Your task to perform on an android device: Go to CNN.com Image 0: 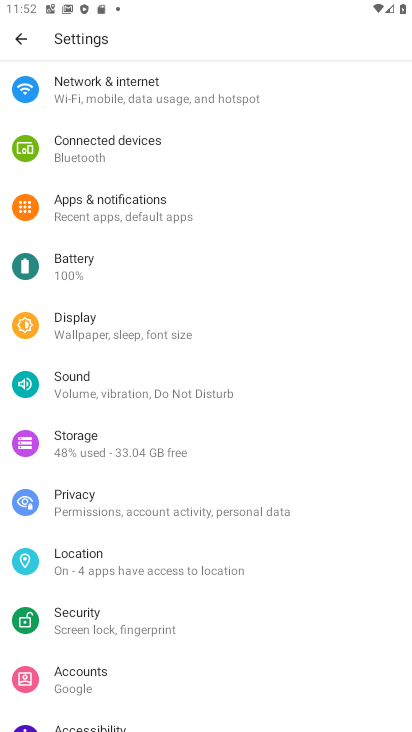
Step 0: press back button
Your task to perform on an android device: Go to CNN.com Image 1: 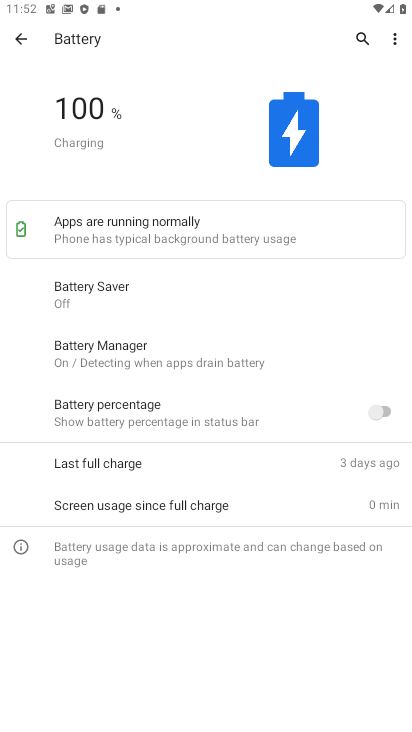
Step 1: press back button
Your task to perform on an android device: Go to CNN.com Image 2: 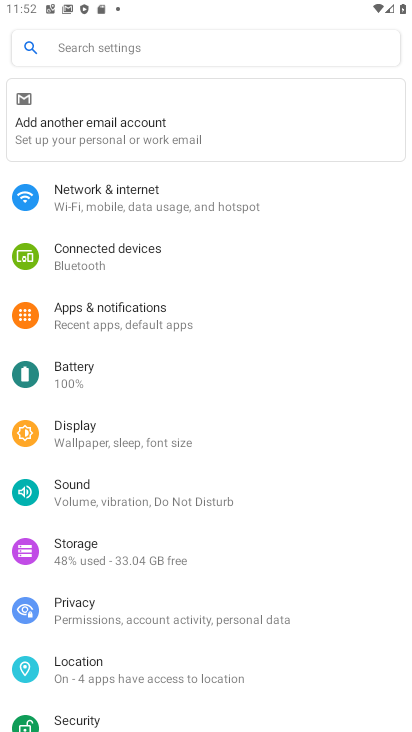
Step 2: press back button
Your task to perform on an android device: Go to CNN.com Image 3: 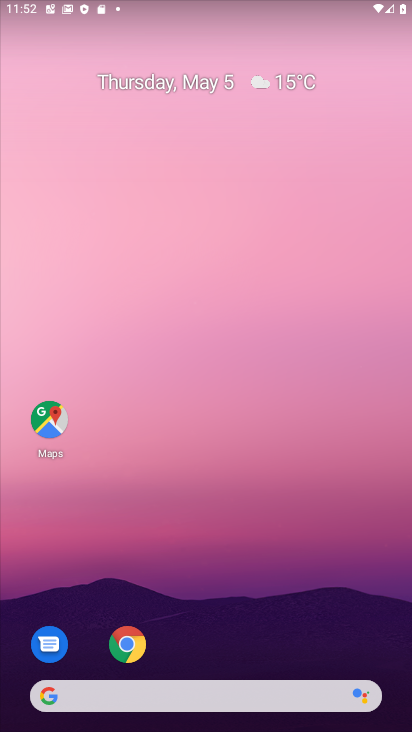
Step 3: drag from (282, 600) to (168, 25)
Your task to perform on an android device: Go to CNN.com Image 4: 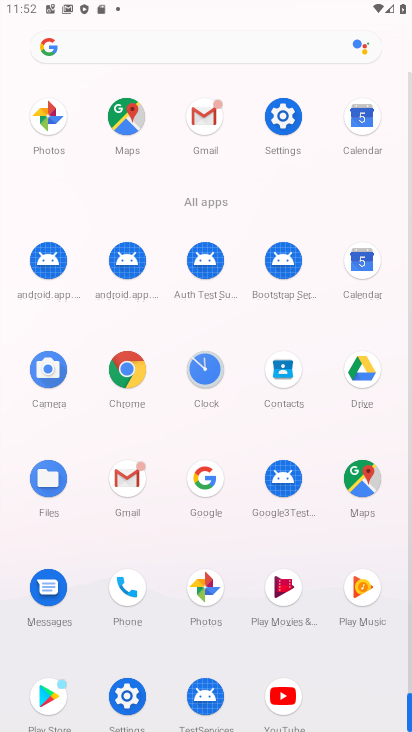
Step 4: click (125, 367)
Your task to perform on an android device: Go to CNN.com Image 5: 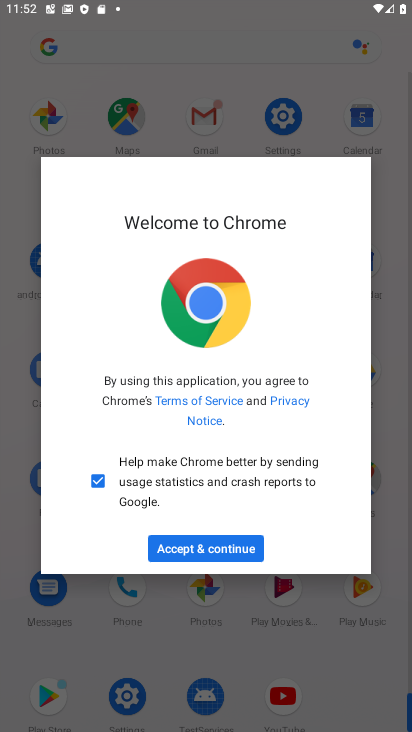
Step 5: click (210, 543)
Your task to perform on an android device: Go to CNN.com Image 6: 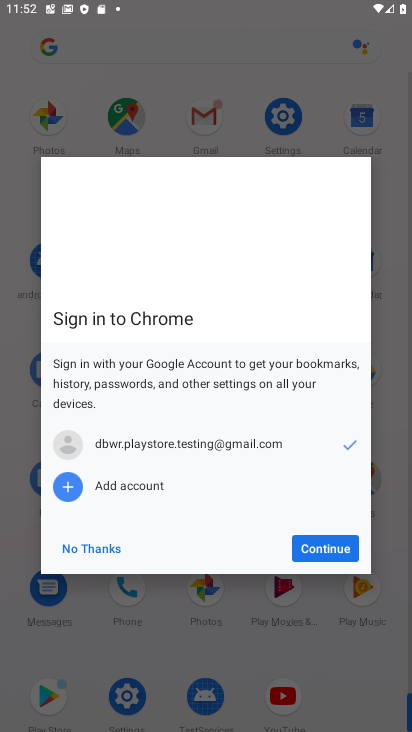
Step 6: click (313, 541)
Your task to perform on an android device: Go to CNN.com Image 7: 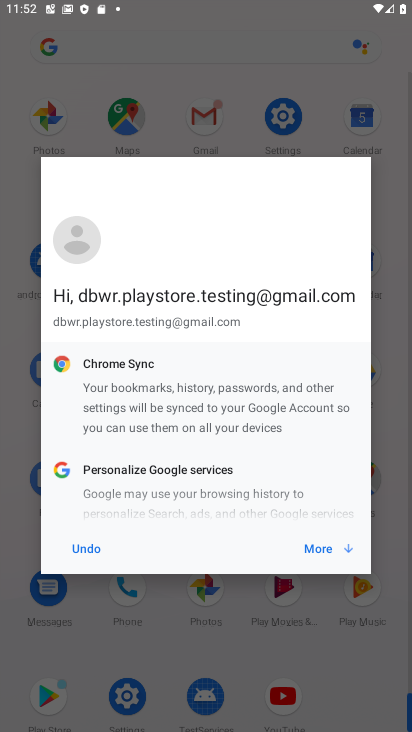
Step 7: click (313, 542)
Your task to perform on an android device: Go to CNN.com Image 8: 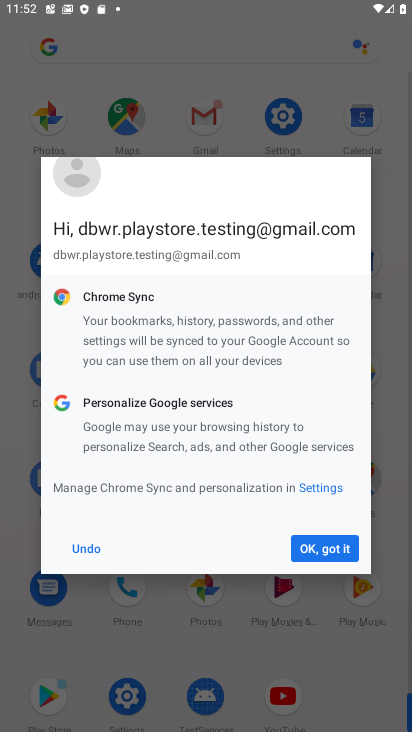
Step 8: click (313, 542)
Your task to perform on an android device: Go to CNN.com Image 9: 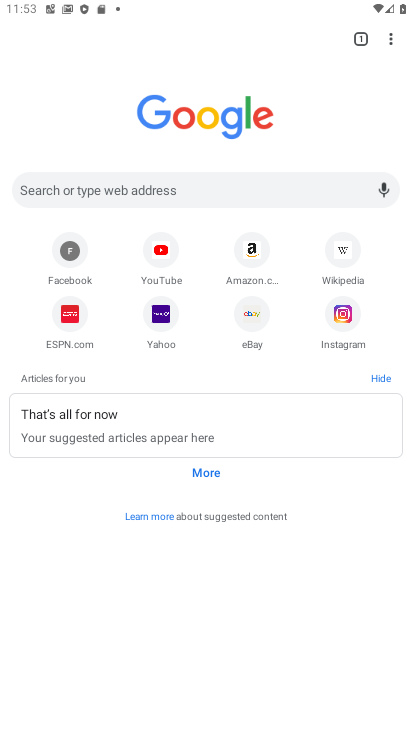
Step 9: click (139, 191)
Your task to perform on an android device: Go to CNN.com Image 10: 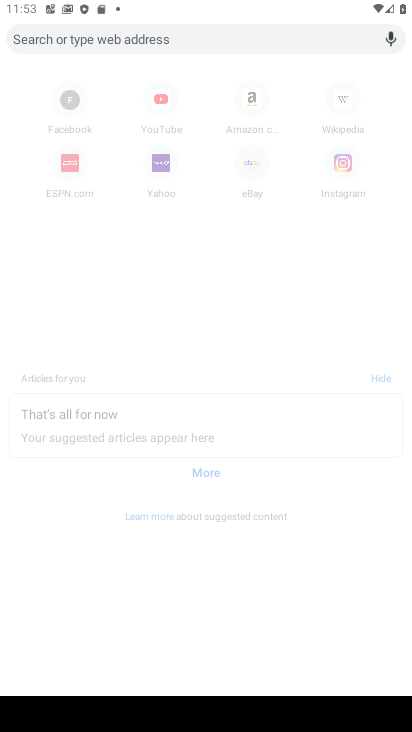
Step 10: click (180, 184)
Your task to perform on an android device: Go to CNN.com Image 11: 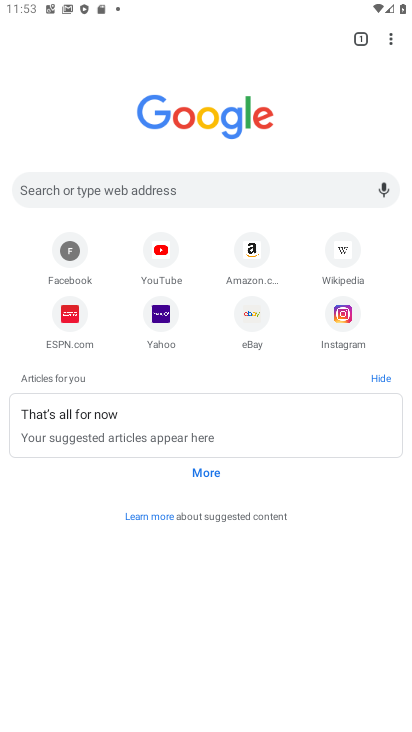
Step 11: click (191, 179)
Your task to perform on an android device: Go to CNN.com Image 12: 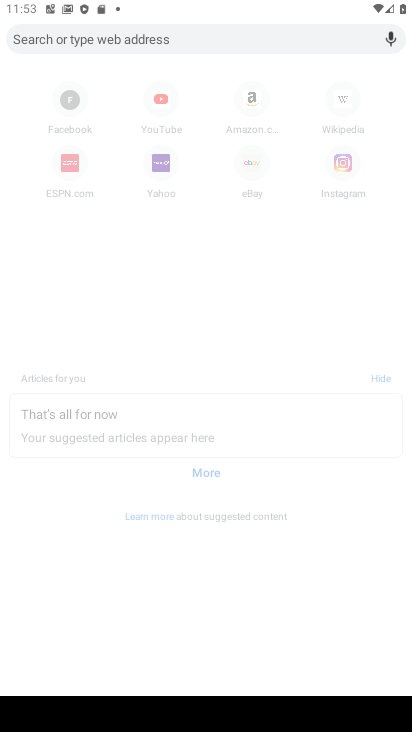
Step 12: type "CNN.com"
Your task to perform on an android device: Go to CNN.com Image 13: 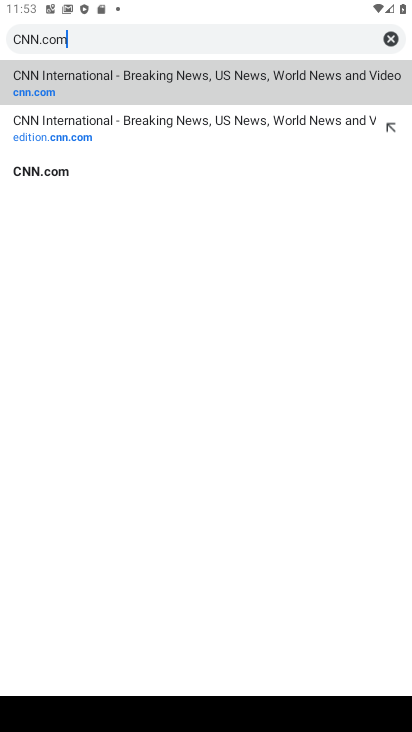
Step 13: type ""
Your task to perform on an android device: Go to CNN.com Image 14: 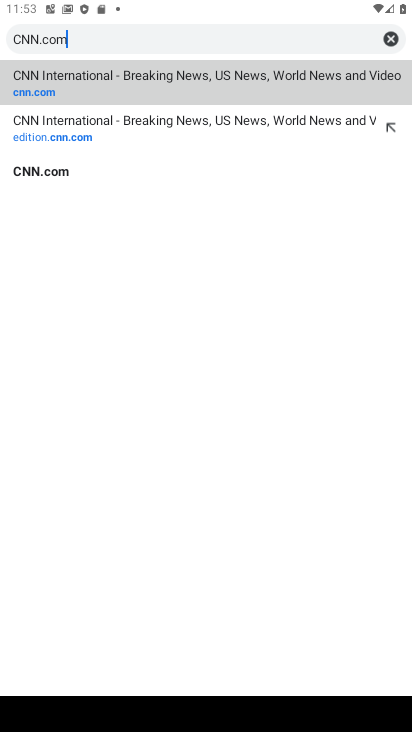
Step 14: click (119, 86)
Your task to perform on an android device: Go to CNN.com Image 15: 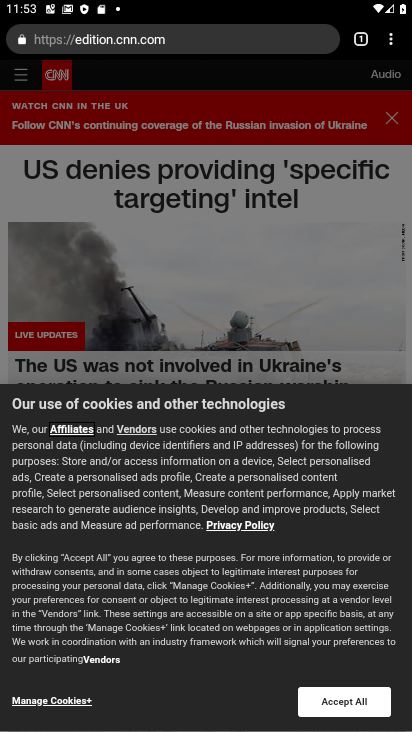
Step 15: click (326, 692)
Your task to perform on an android device: Go to CNN.com Image 16: 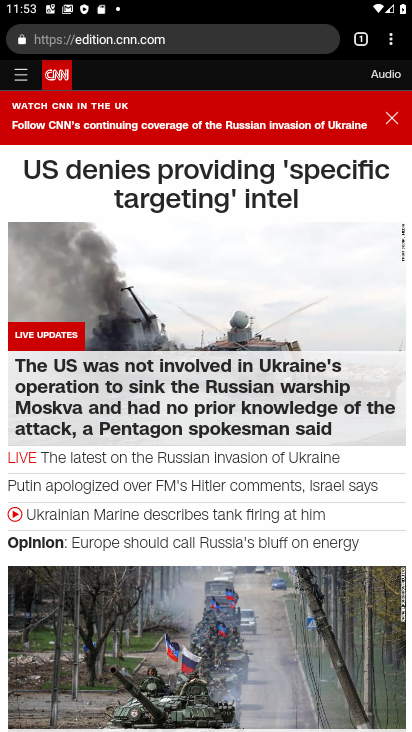
Step 16: task complete